Your task to perform on an android device: star an email in the gmail app Image 0: 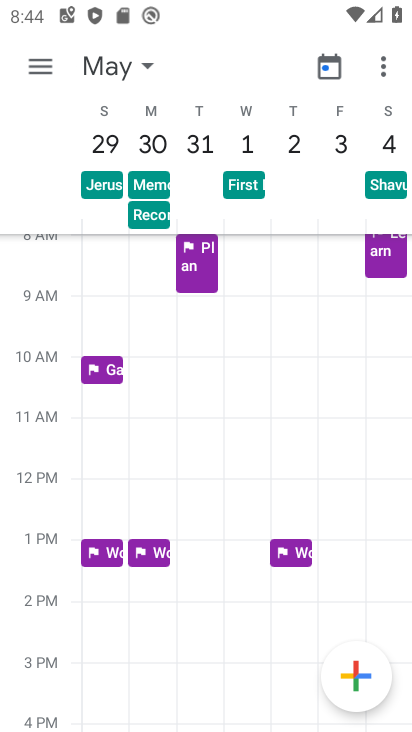
Step 0: press home button
Your task to perform on an android device: star an email in the gmail app Image 1: 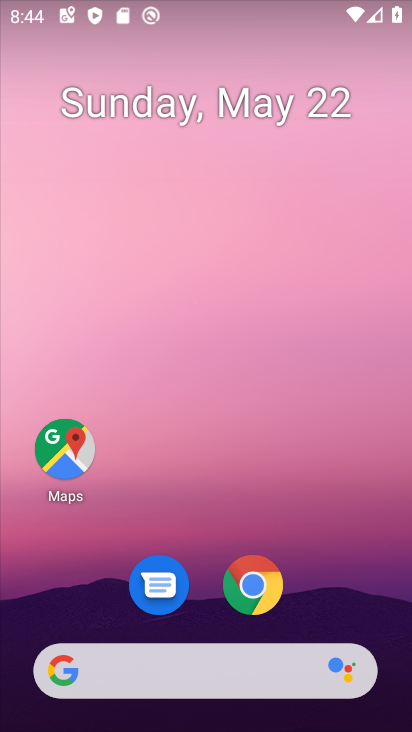
Step 1: drag from (250, 489) to (225, 50)
Your task to perform on an android device: star an email in the gmail app Image 2: 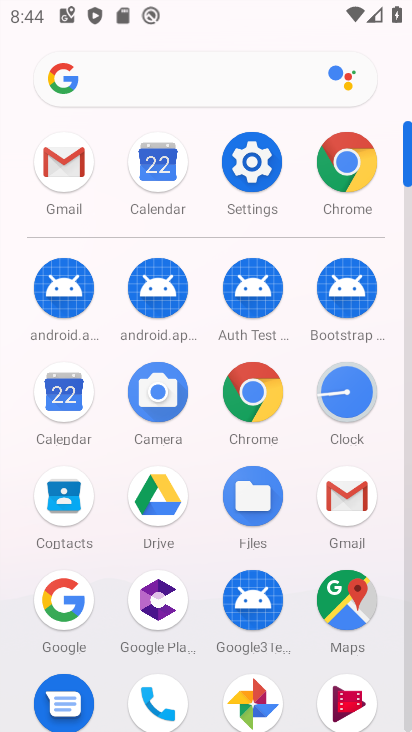
Step 2: click (75, 168)
Your task to perform on an android device: star an email in the gmail app Image 3: 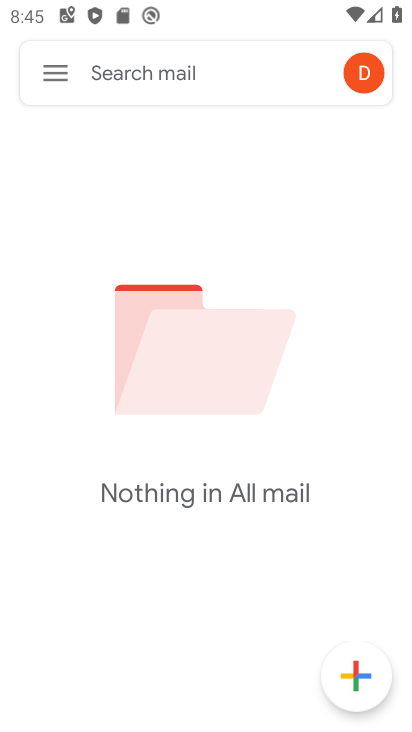
Step 3: task complete